Your task to perform on an android device: Open notification settings Image 0: 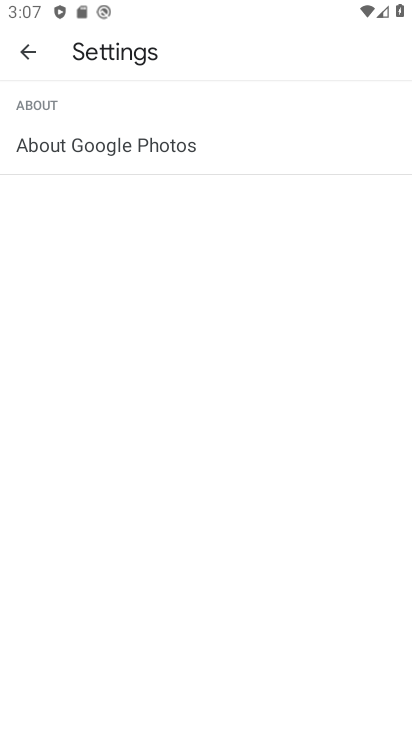
Step 0: click (20, 54)
Your task to perform on an android device: Open notification settings Image 1: 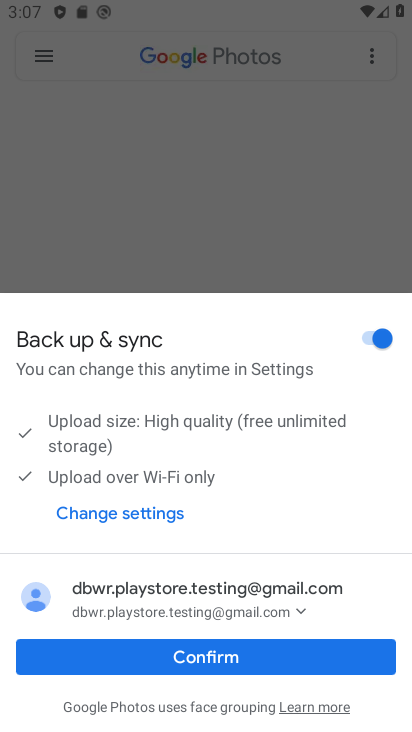
Step 1: click (227, 647)
Your task to perform on an android device: Open notification settings Image 2: 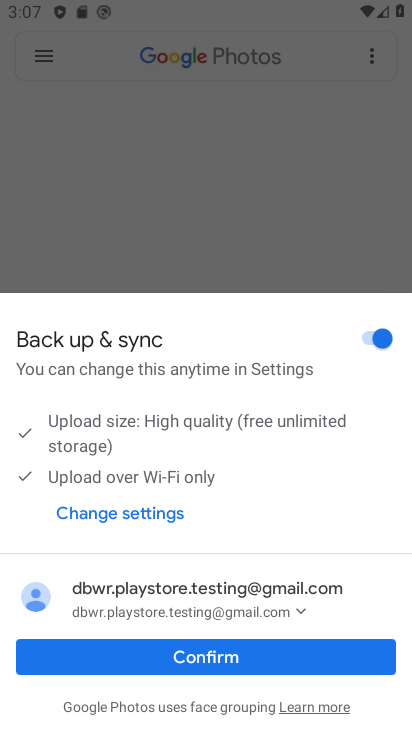
Step 2: click (227, 647)
Your task to perform on an android device: Open notification settings Image 3: 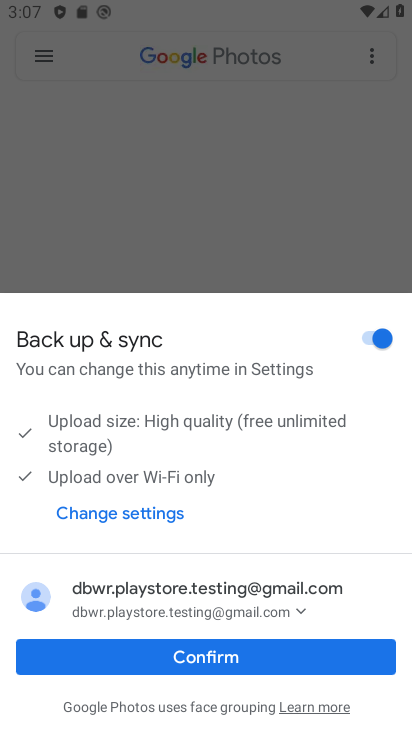
Step 3: click (229, 649)
Your task to perform on an android device: Open notification settings Image 4: 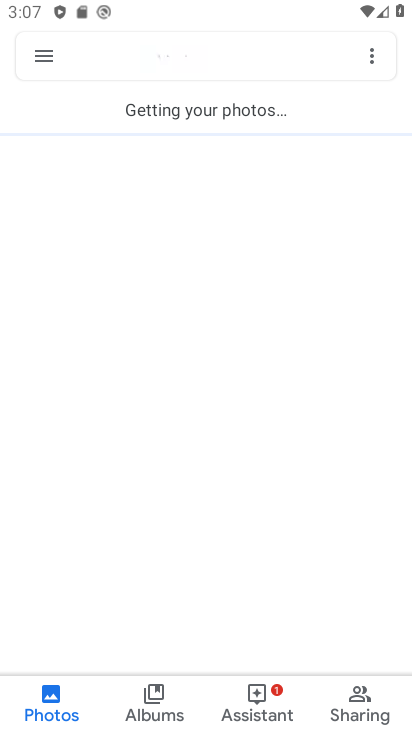
Step 4: press back button
Your task to perform on an android device: Open notification settings Image 5: 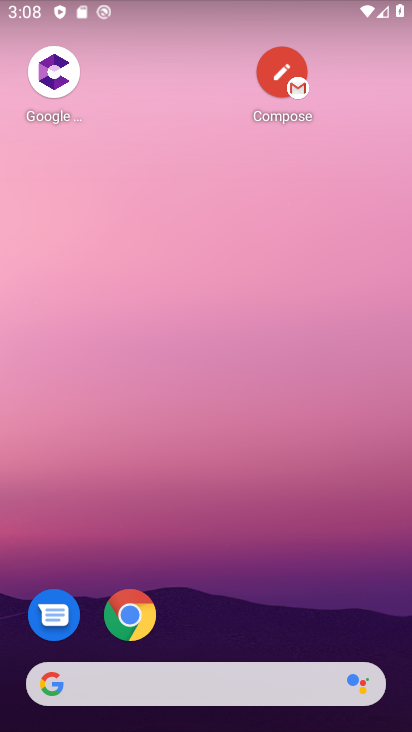
Step 5: drag from (241, 598) to (187, 125)
Your task to perform on an android device: Open notification settings Image 6: 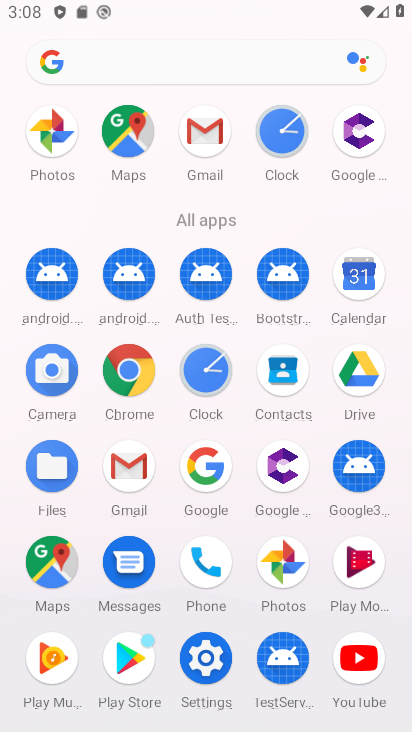
Step 6: drag from (271, 645) to (215, 114)
Your task to perform on an android device: Open notification settings Image 7: 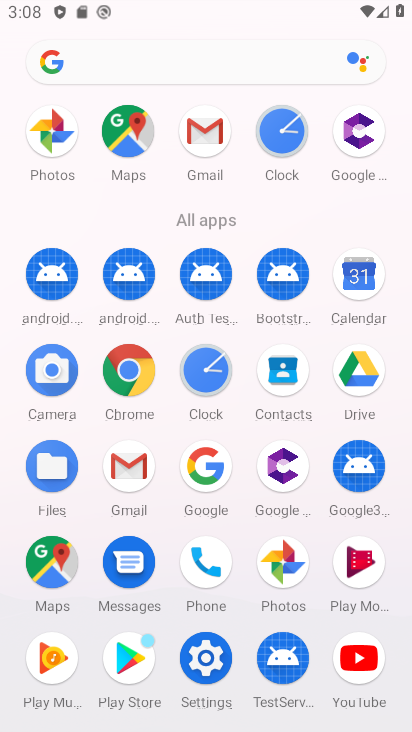
Step 7: click (114, 2)
Your task to perform on an android device: Open notification settings Image 8: 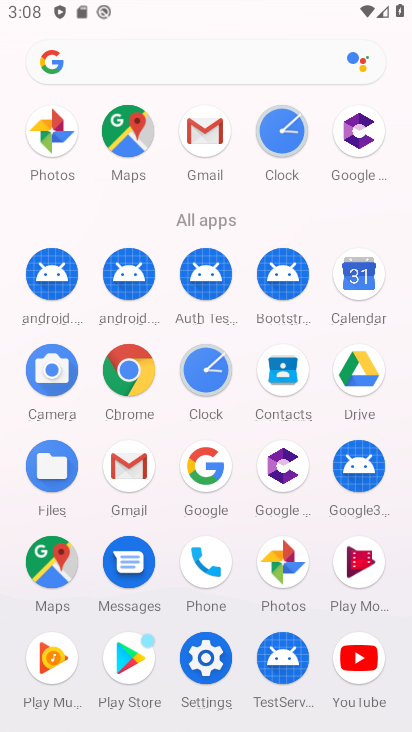
Step 8: click (193, 675)
Your task to perform on an android device: Open notification settings Image 9: 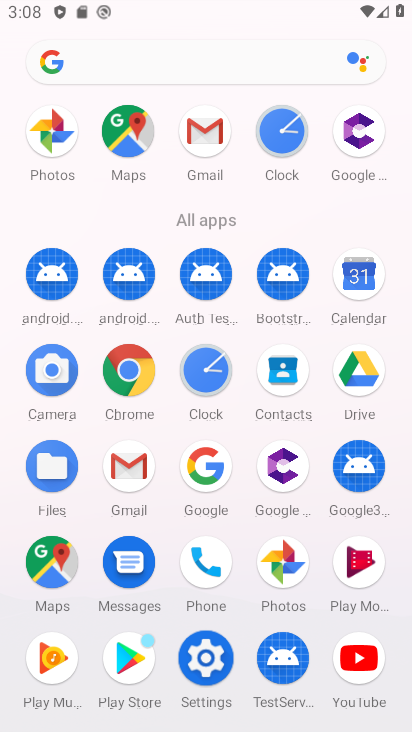
Step 9: click (194, 670)
Your task to perform on an android device: Open notification settings Image 10: 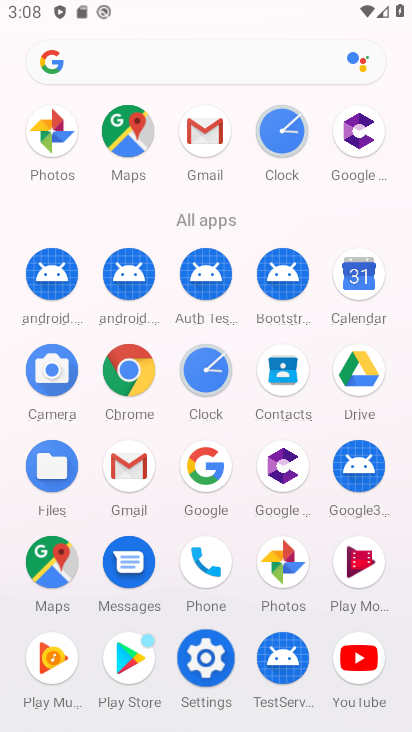
Step 10: click (194, 670)
Your task to perform on an android device: Open notification settings Image 11: 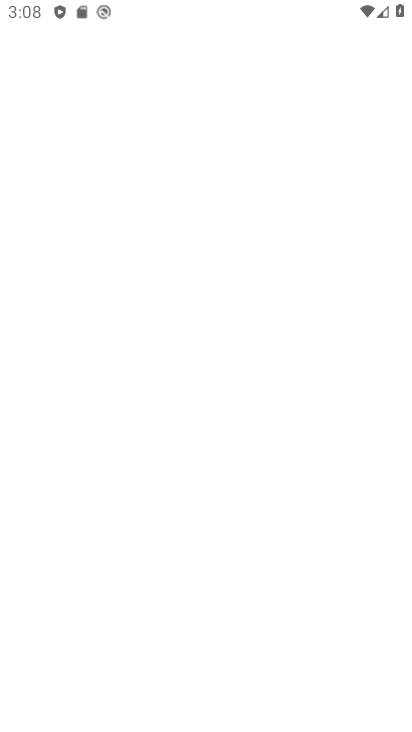
Step 11: click (196, 659)
Your task to perform on an android device: Open notification settings Image 12: 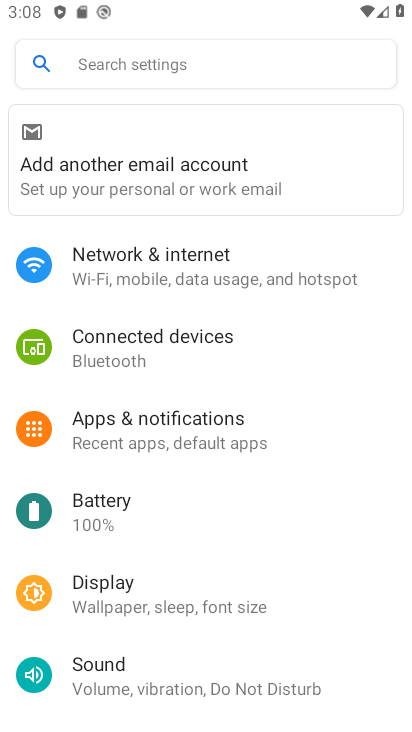
Step 12: click (171, 425)
Your task to perform on an android device: Open notification settings Image 13: 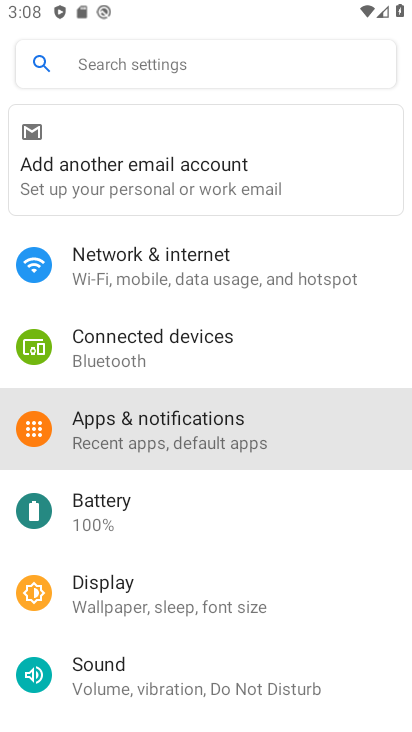
Step 13: click (170, 429)
Your task to perform on an android device: Open notification settings Image 14: 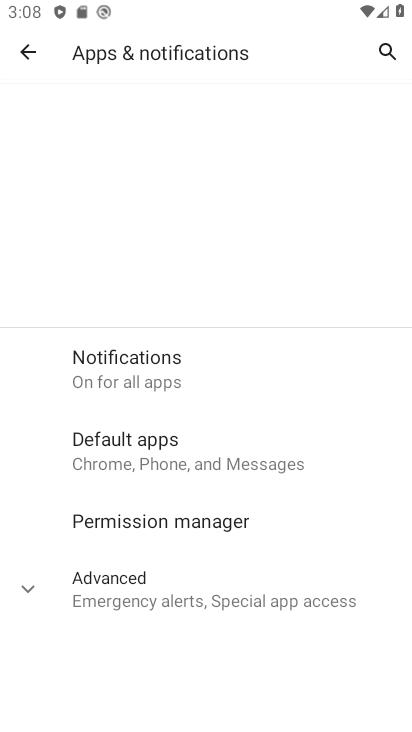
Step 14: click (177, 417)
Your task to perform on an android device: Open notification settings Image 15: 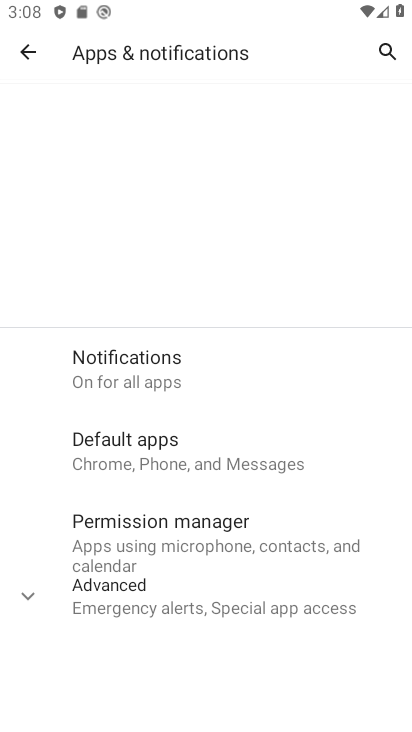
Step 15: click (178, 421)
Your task to perform on an android device: Open notification settings Image 16: 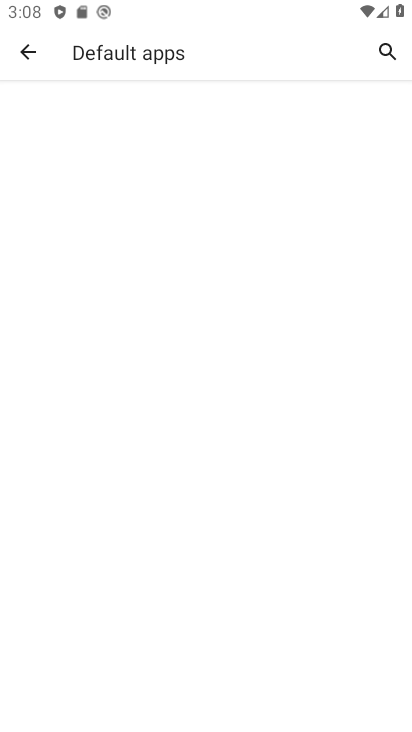
Step 16: click (174, 416)
Your task to perform on an android device: Open notification settings Image 17: 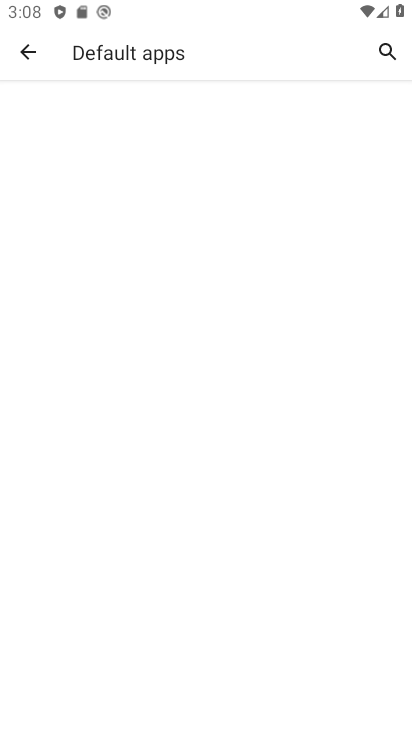
Step 17: click (175, 417)
Your task to perform on an android device: Open notification settings Image 18: 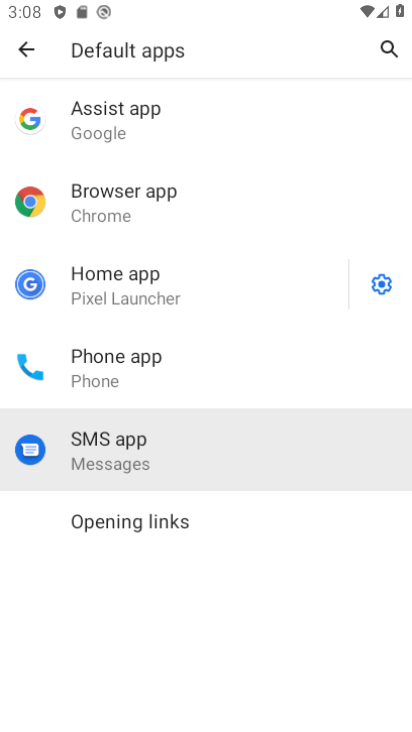
Step 18: click (175, 417)
Your task to perform on an android device: Open notification settings Image 19: 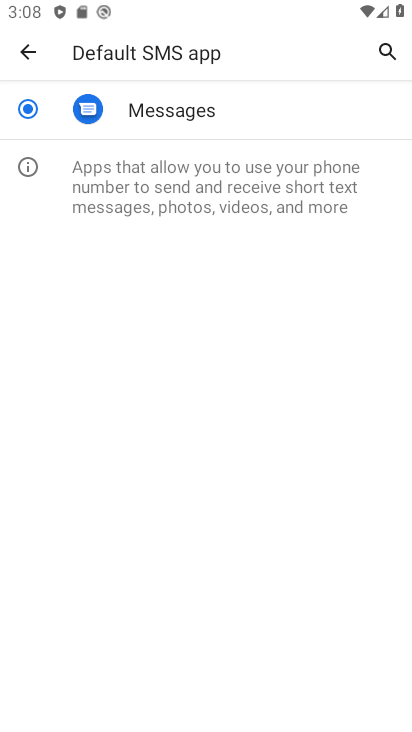
Step 19: click (176, 416)
Your task to perform on an android device: Open notification settings Image 20: 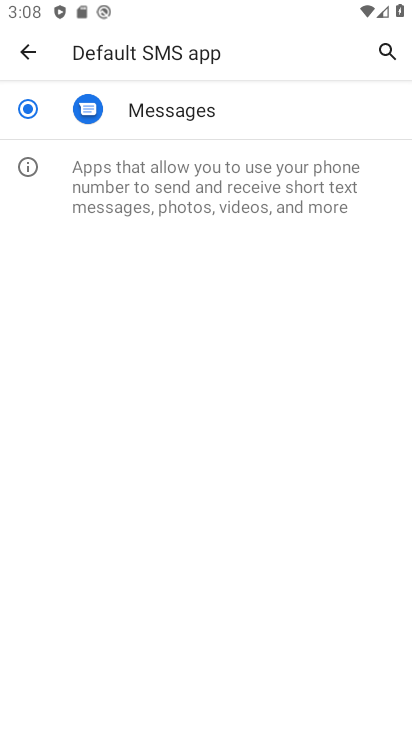
Step 20: click (175, 416)
Your task to perform on an android device: Open notification settings Image 21: 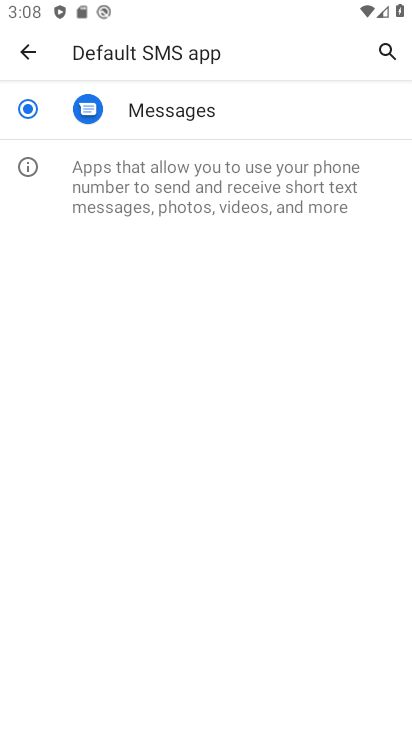
Step 21: click (19, 44)
Your task to perform on an android device: Open notification settings Image 22: 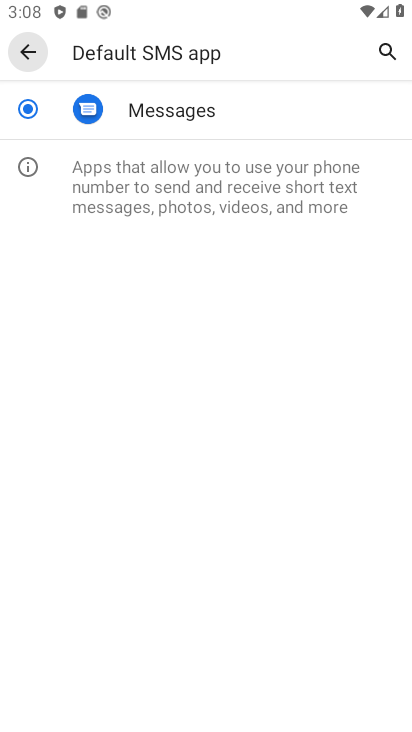
Step 22: click (19, 45)
Your task to perform on an android device: Open notification settings Image 23: 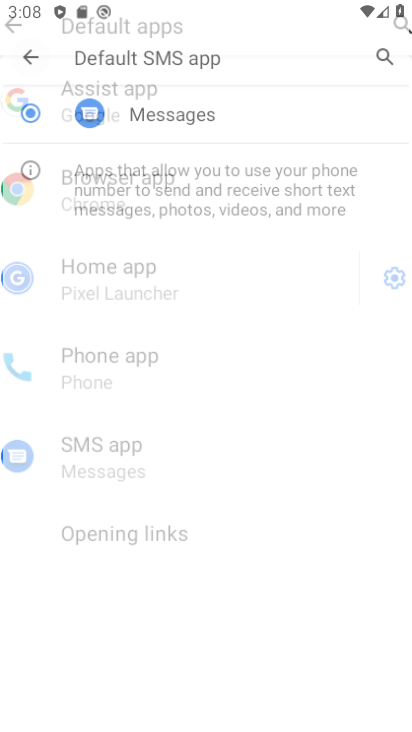
Step 23: click (16, 46)
Your task to perform on an android device: Open notification settings Image 24: 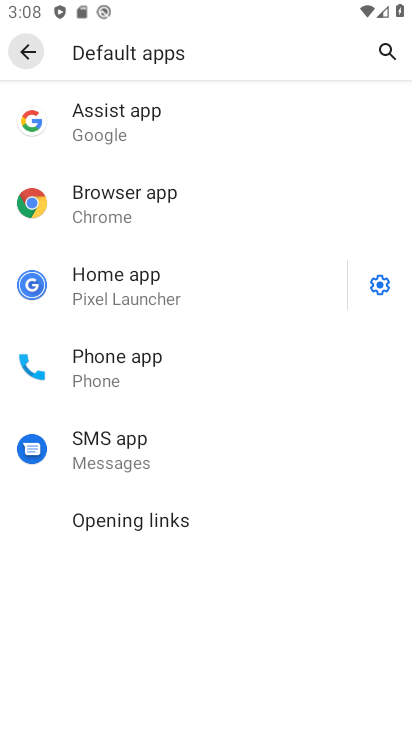
Step 24: click (16, 46)
Your task to perform on an android device: Open notification settings Image 25: 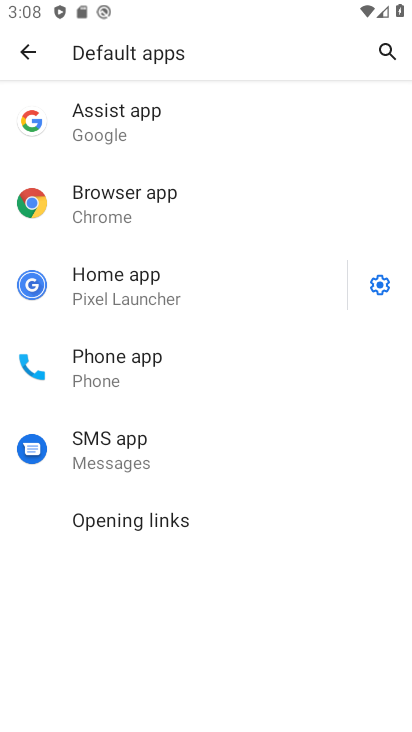
Step 25: task complete